Your task to perform on an android device: toggle priority inbox in the gmail app Image 0: 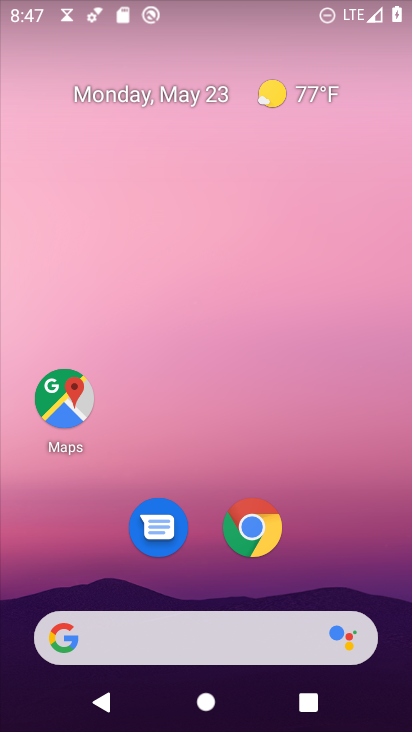
Step 0: press home button
Your task to perform on an android device: toggle priority inbox in the gmail app Image 1: 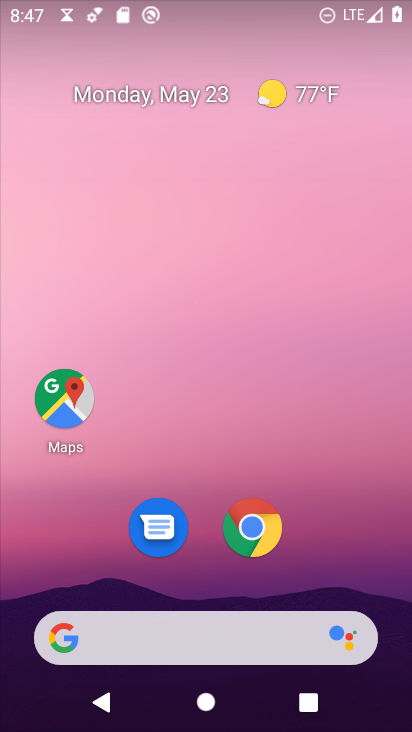
Step 1: drag from (242, 637) to (168, 192)
Your task to perform on an android device: toggle priority inbox in the gmail app Image 2: 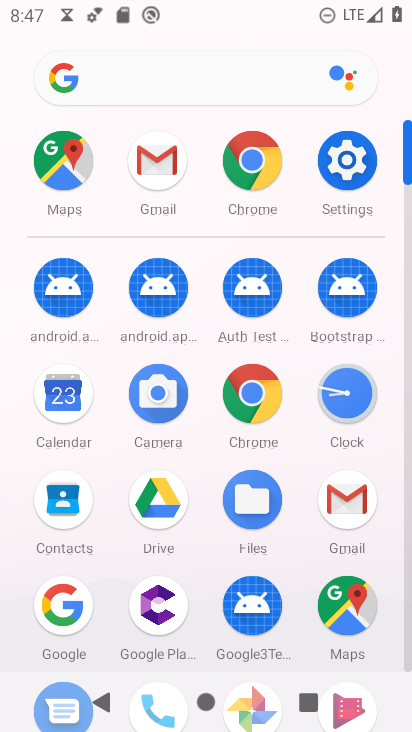
Step 2: click (178, 191)
Your task to perform on an android device: toggle priority inbox in the gmail app Image 3: 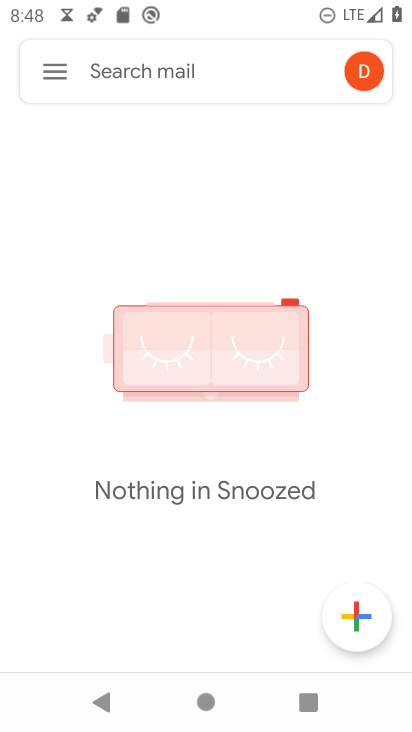
Step 3: click (52, 73)
Your task to perform on an android device: toggle priority inbox in the gmail app Image 4: 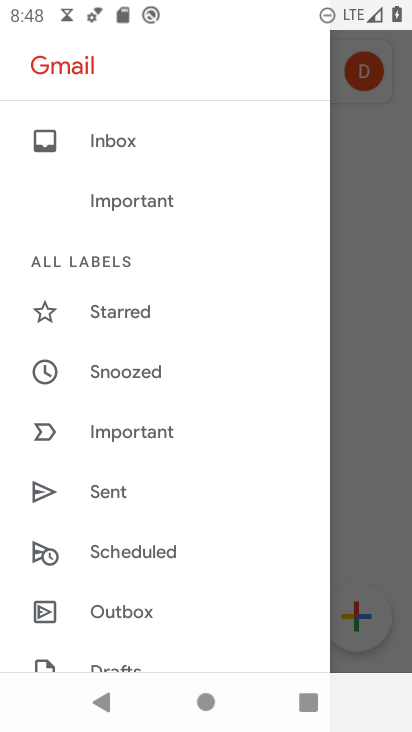
Step 4: drag from (155, 551) to (180, 292)
Your task to perform on an android device: toggle priority inbox in the gmail app Image 5: 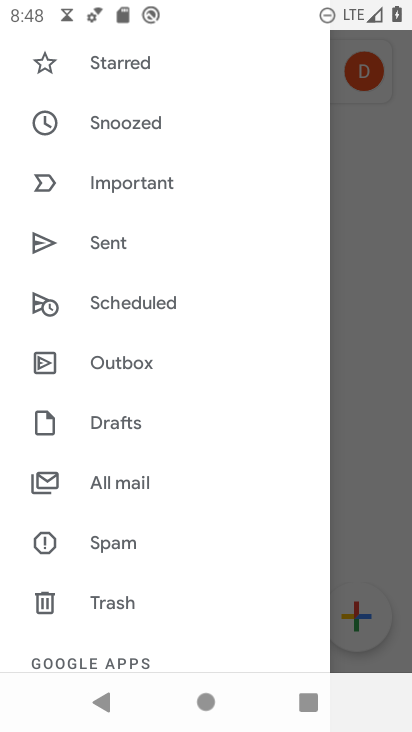
Step 5: drag from (140, 546) to (184, 379)
Your task to perform on an android device: toggle priority inbox in the gmail app Image 6: 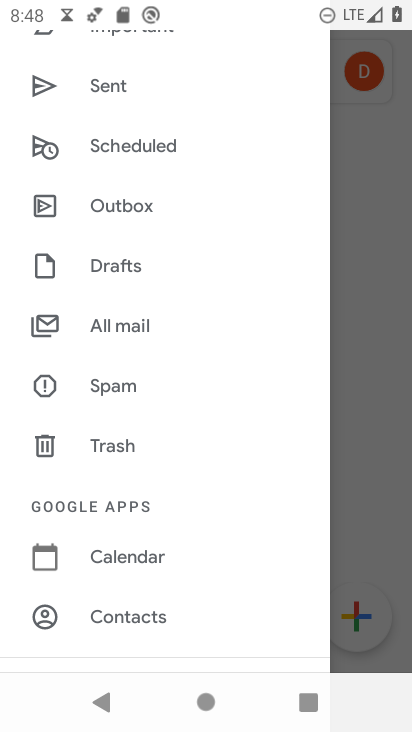
Step 6: drag from (171, 539) to (188, 404)
Your task to perform on an android device: toggle priority inbox in the gmail app Image 7: 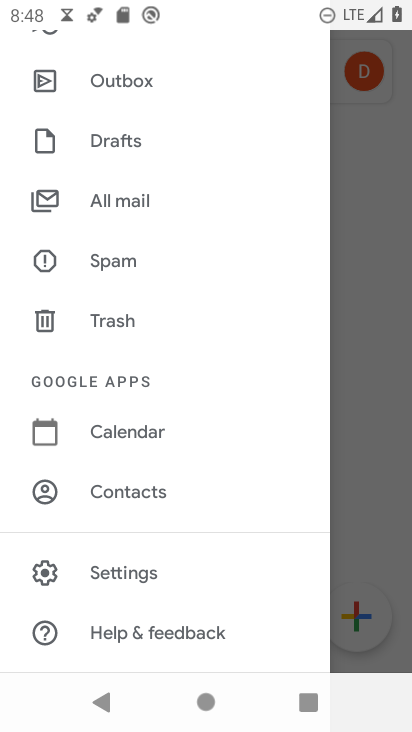
Step 7: click (125, 566)
Your task to perform on an android device: toggle priority inbox in the gmail app Image 8: 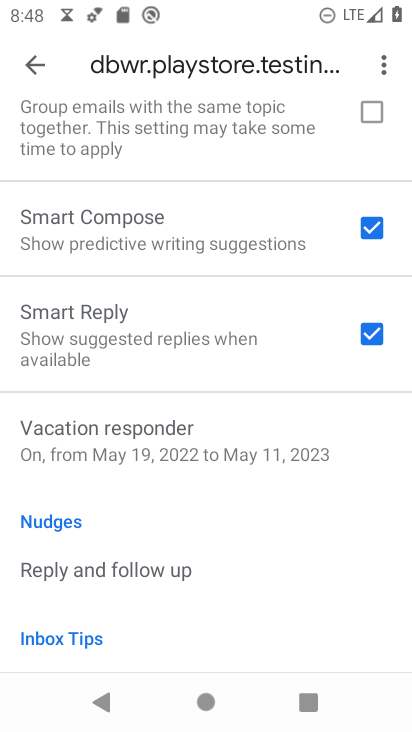
Step 8: drag from (152, 212) to (220, 662)
Your task to perform on an android device: toggle priority inbox in the gmail app Image 9: 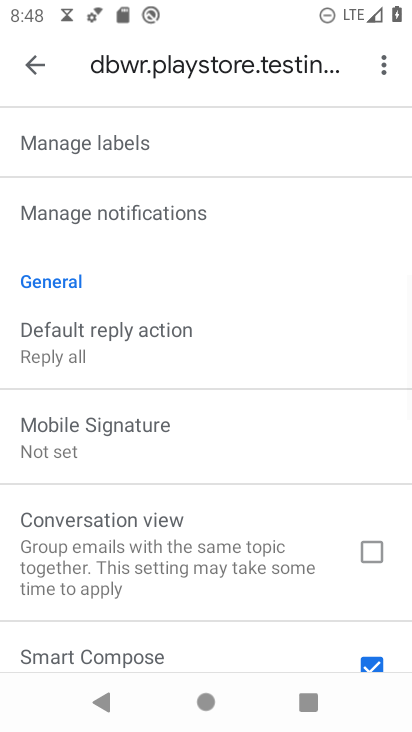
Step 9: drag from (183, 240) to (234, 530)
Your task to perform on an android device: toggle priority inbox in the gmail app Image 10: 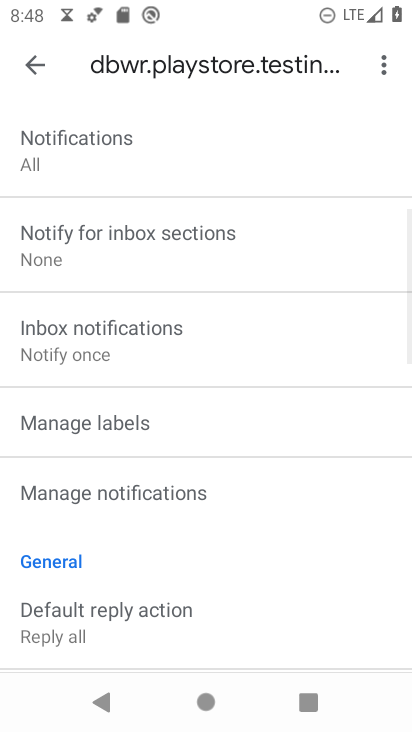
Step 10: drag from (175, 245) to (207, 446)
Your task to perform on an android device: toggle priority inbox in the gmail app Image 11: 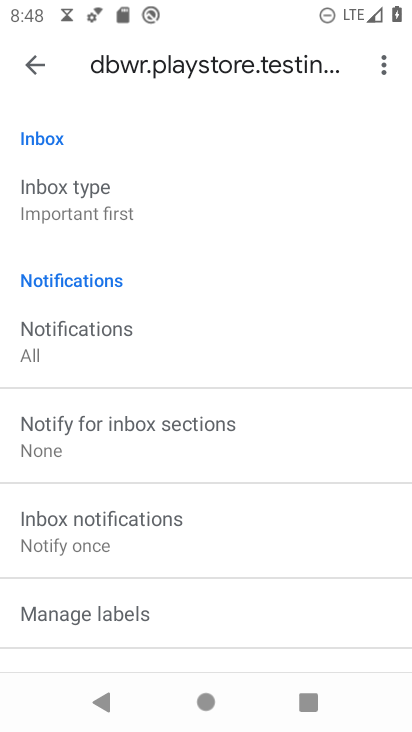
Step 11: drag from (139, 199) to (175, 361)
Your task to perform on an android device: toggle priority inbox in the gmail app Image 12: 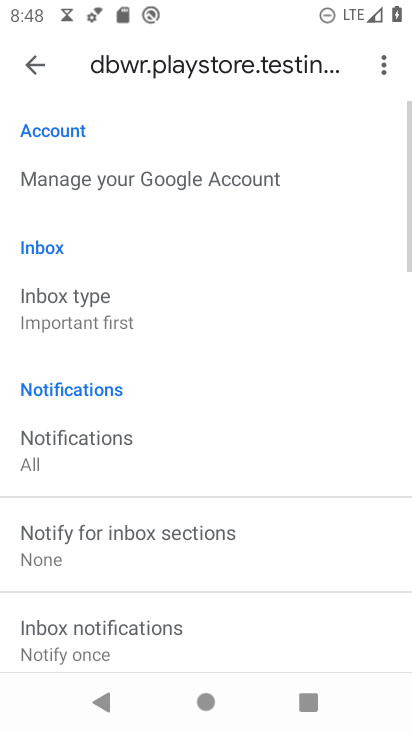
Step 12: click (108, 300)
Your task to perform on an android device: toggle priority inbox in the gmail app Image 13: 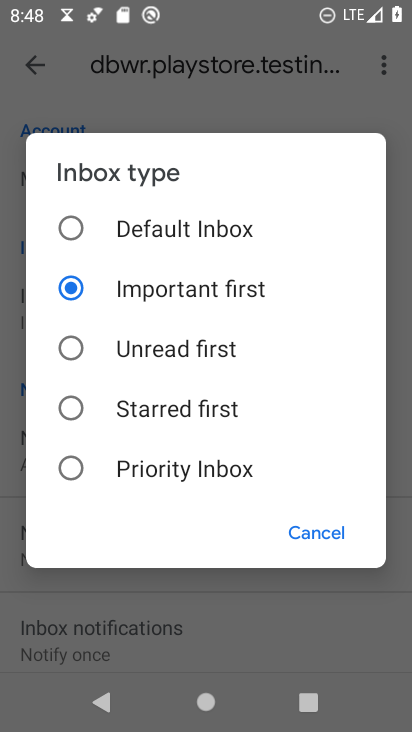
Step 13: click (130, 454)
Your task to perform on an android device: toggle priority inbox in the gmail app Image 14: 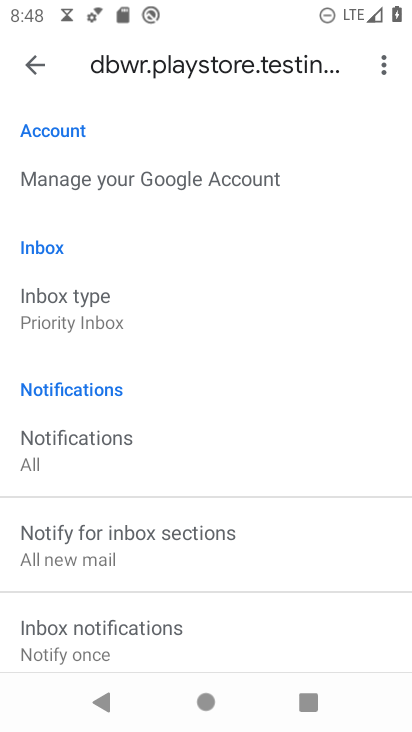
Step 14: task complete